Your task to perform on an android device: What's on my calendar tomorrow? Image 0: 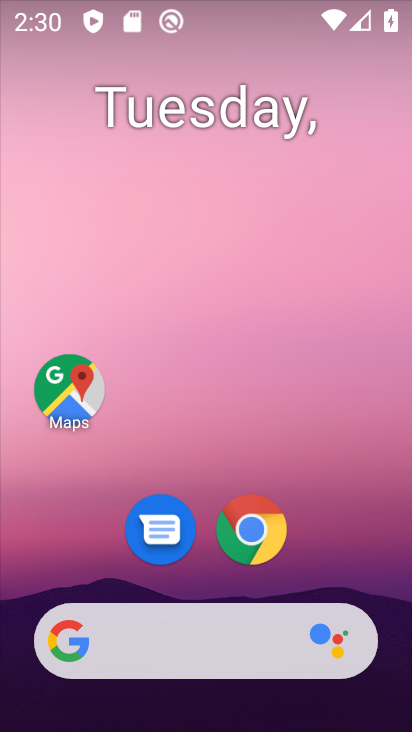
Step 0: drag from (390, 621) to (223, 174)
Your task to perform on an android device: What's on my calendar tomorrow? Image 1: 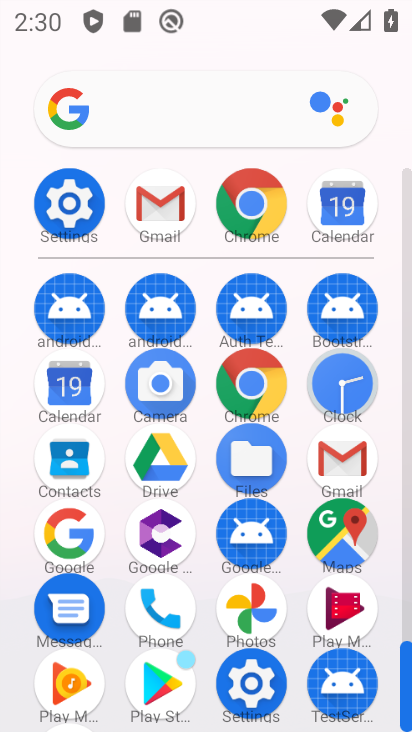
Step 1: click (78, 394)
Your task to perform on an android device: What's on my calendar tomorrow? Image 2: 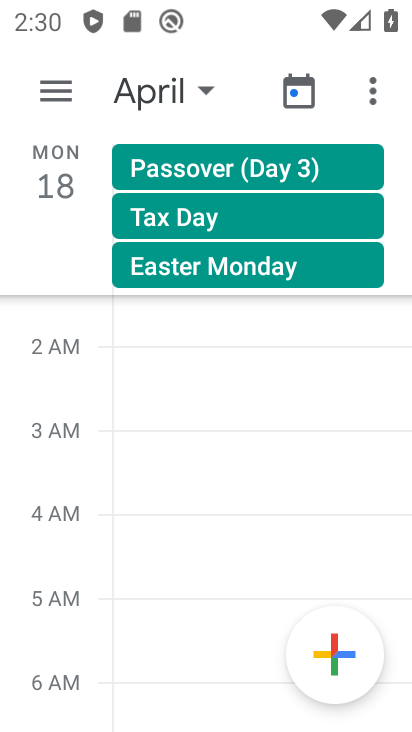
Step 2: click (127, 101)
Your task to perform on an android device: What's on my calendar tomorrow? Image 3: 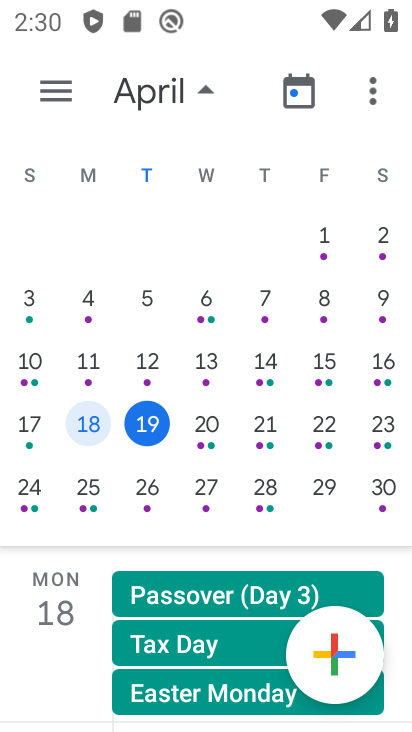
Step 3: click (205, 417)
Your task to perform on an android device: What's on my calendar tomorrow? Image 4: 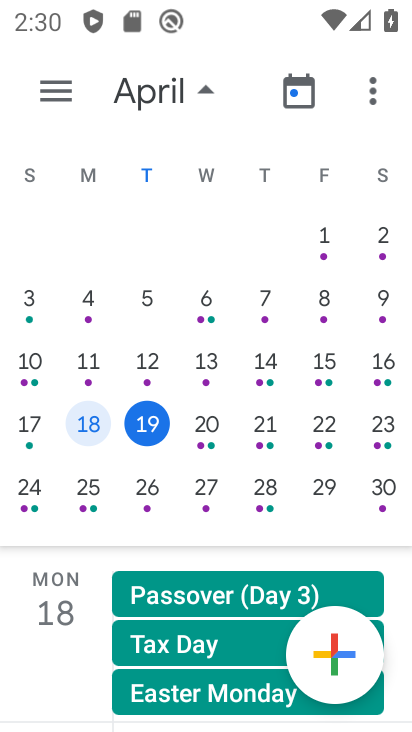
Step 4: click (208, 434)
Your task to perform on an android device: What's on my calendar tomorrow? Image 5: 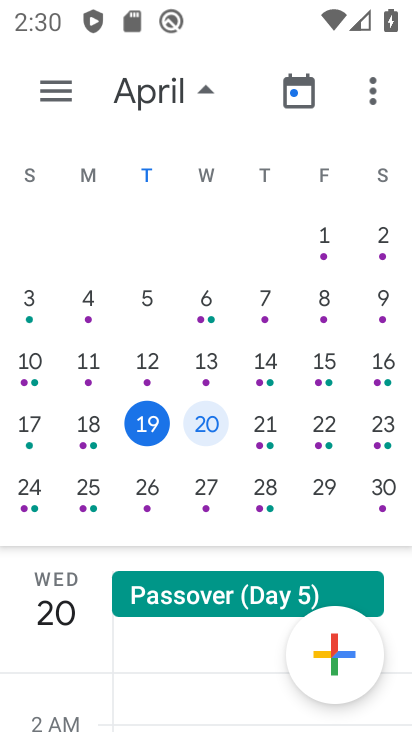
Step 5: click (118, 563)
Your task to perform on an android device: What's on my calendar tomorrow? Image 6: 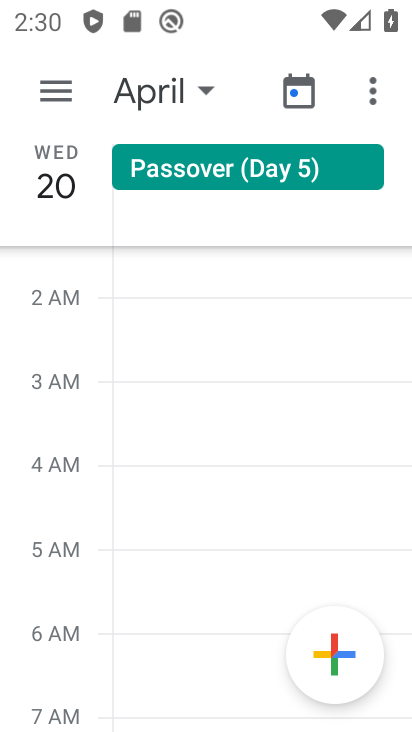
Step 6: task complete